Your task to perform on an android device: Open battery settings Image 0: 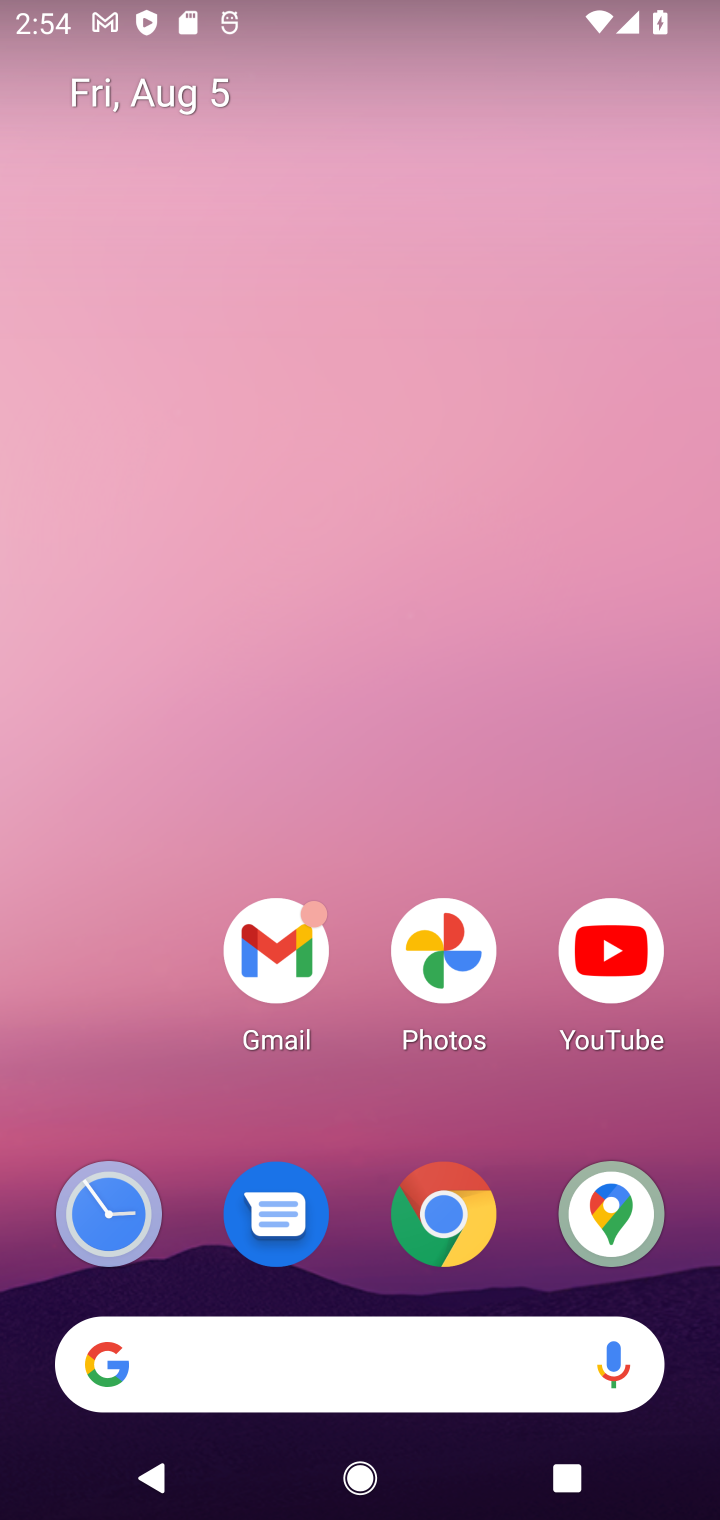
Step 0: drag from (448, 1289) to (375, 4)
Your task to perform on an android device: Open battery settings Image 1: 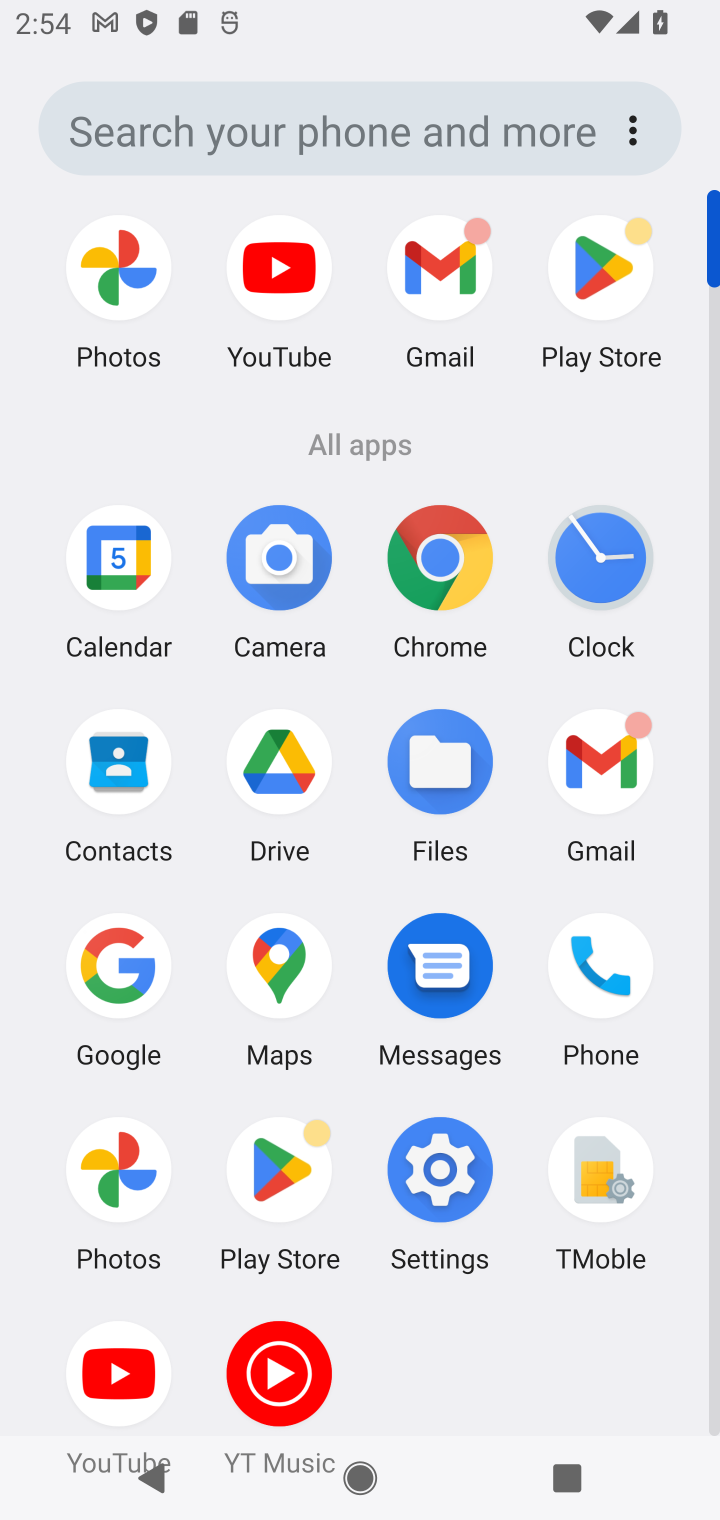
Step 1: click (475, 1172)
Your task to perform on an android device: Open battery settings Image 2: 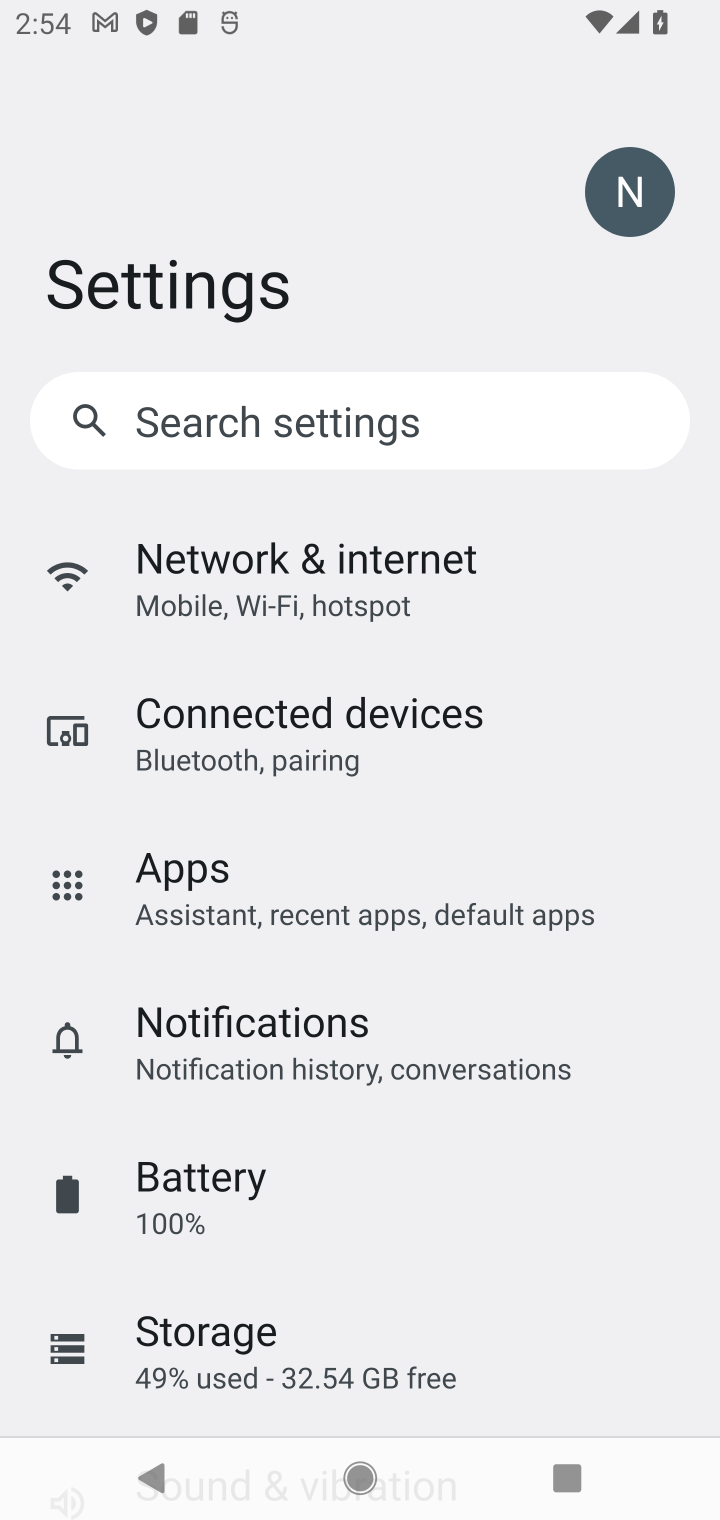
Step 2: click (414, 1206)
Your task to perform on an android device: Open battery settings Image 3: 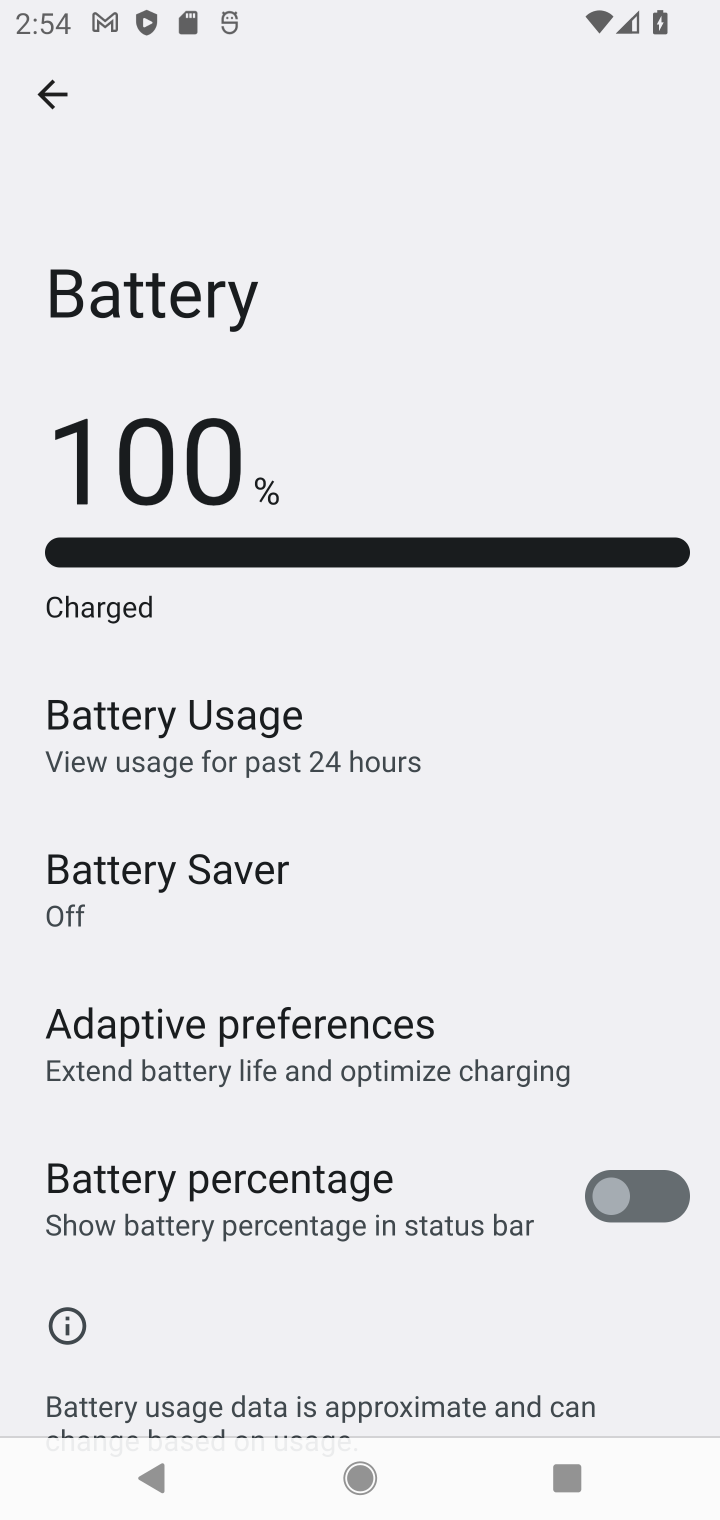
Step 3: task complete